Your task to perform on an android device: empty trash in the gmail app Image 0: 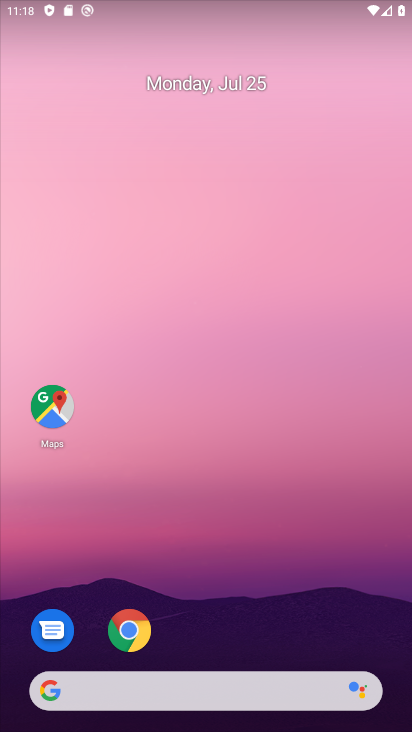
Step 0: click (333, 260)
Your task to perform on an android device: empty trash in the gmail app Image 1: 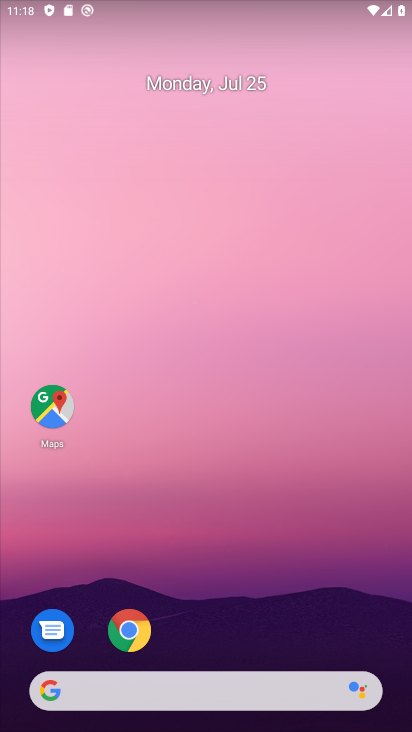
Step 1: drag from (328, 520) to (301, 146)
Your task to perform on an android device: empty trash in the gmail app Image 2: 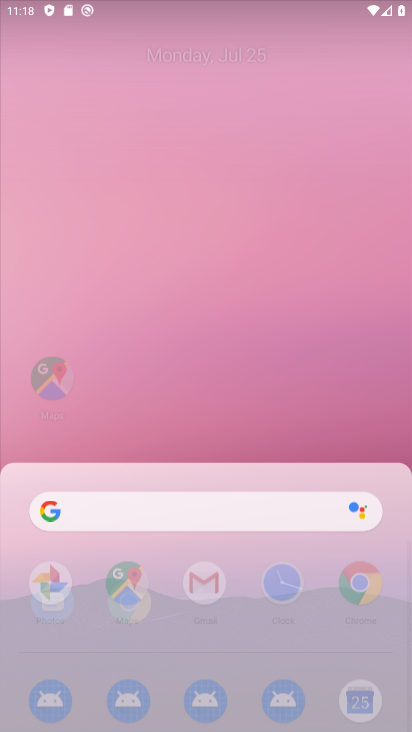
Step 2: drag from (182, 567) to (182, 164)
Your task to perform on an android device: empty trash in the gmail app Image 3: 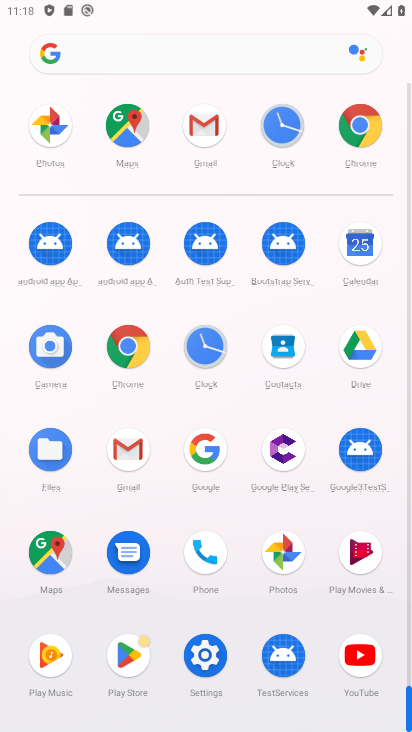
Step 3: drag from (253, 571) to (231, 132)
Your task to perform on an android device: empty trash in the gmail app Image 4: 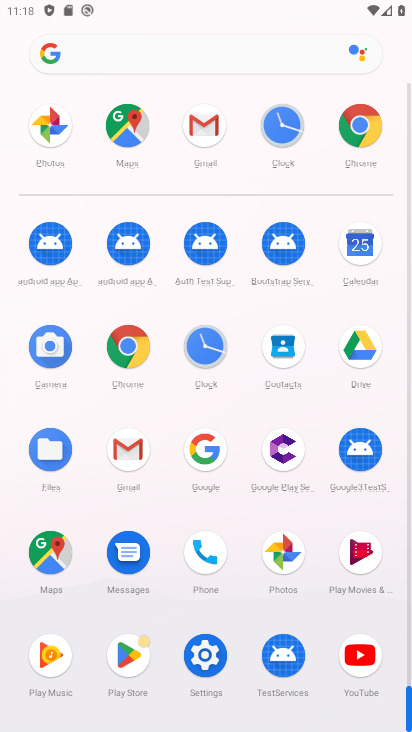
Step 4: click (125, 440)
Your task to perform on an android device: empty trash in the gmail app Image 5: 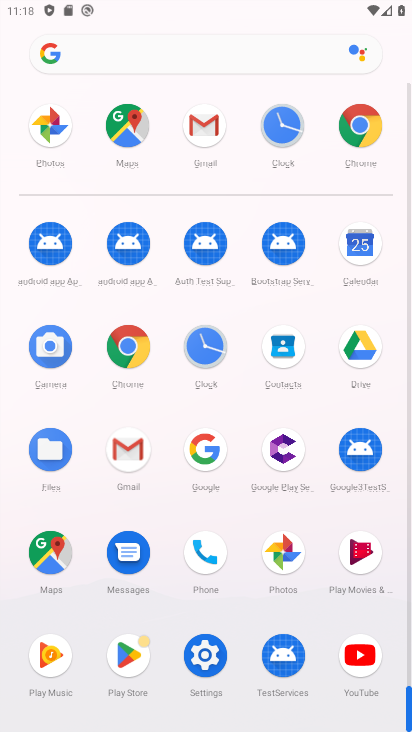
Step 5: click (126, 440)
Your task to perform on an android device: empty trash in the gmail app Image 6: 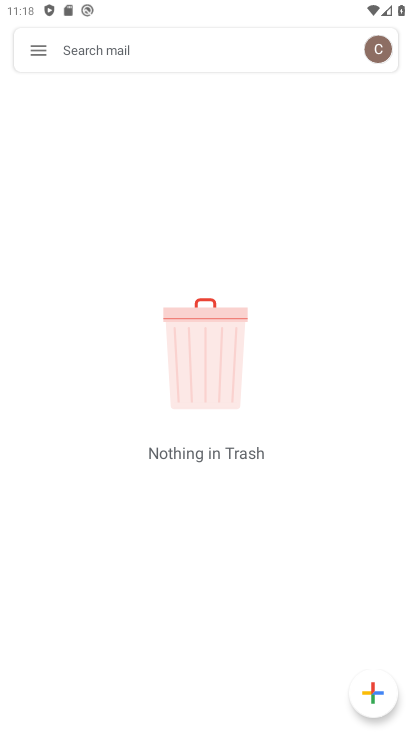
Step 6: click (32, 49)
Your task to perform on an android device: empty trash in the gmail app Image 7: 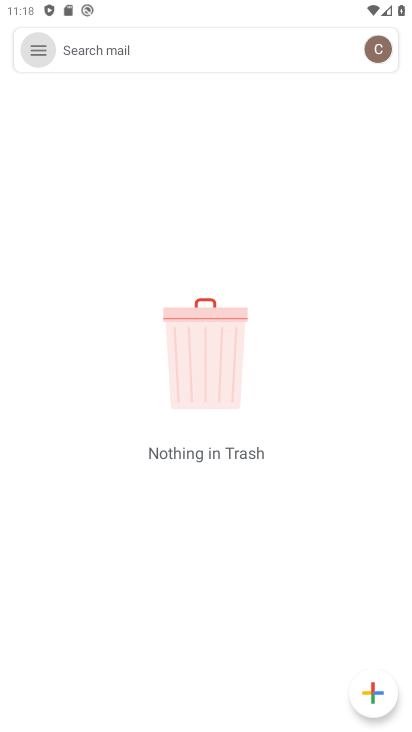
Step 7: click (32, 49)
Your task to perform on an android device: empty trash in the gmail app Image 8: 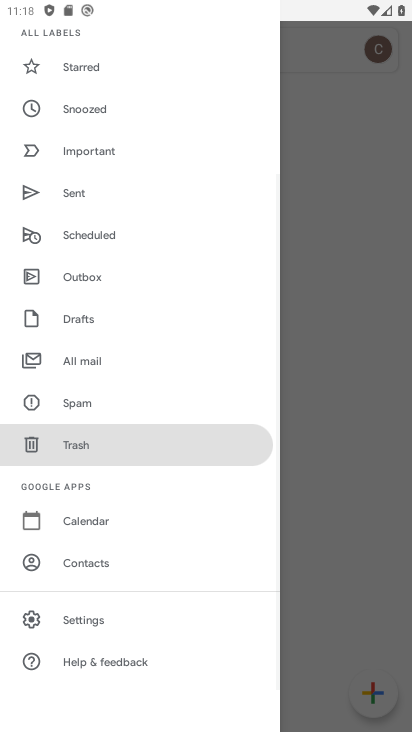
Step 8: click (94, 441)
Your task to perform on an android device: empty trash in the gmail app Image 9: 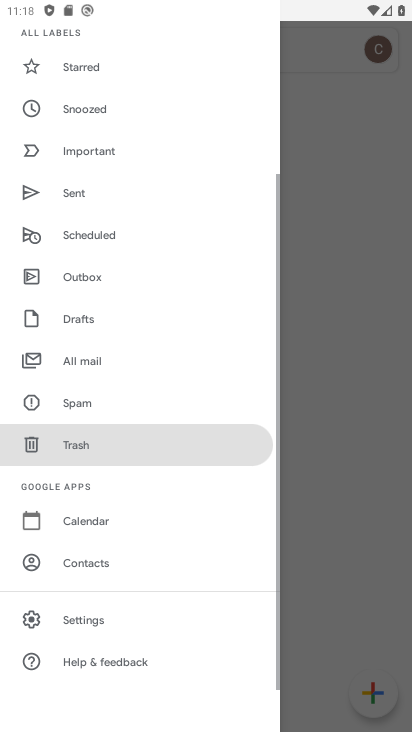
Step 9: click (94, 440)
Your task to perform on an android device: empty trash in the gmail app Image 10: 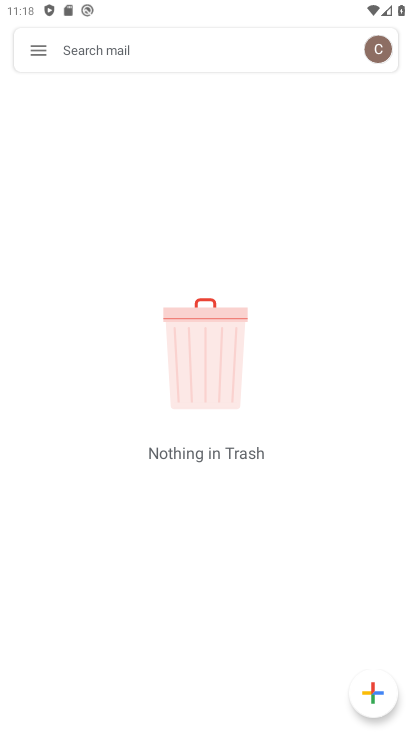
Step 10: task complete